Your task to perform on an android device: Go to Wikipedia Image 0: 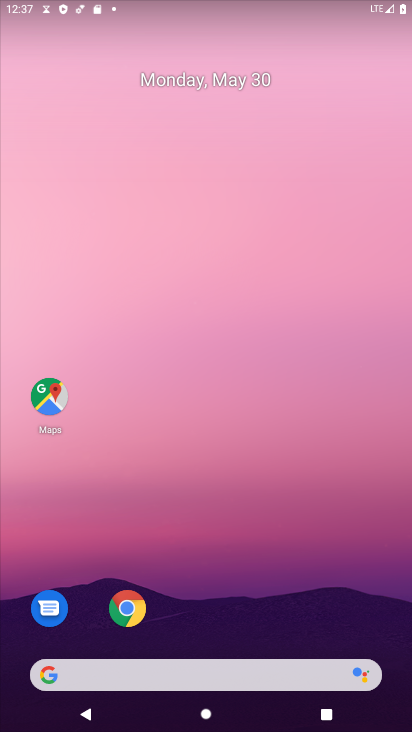
Step 0: click (142, 615)
Your task to perform on an android device: Go to Wikipedia Image 1: 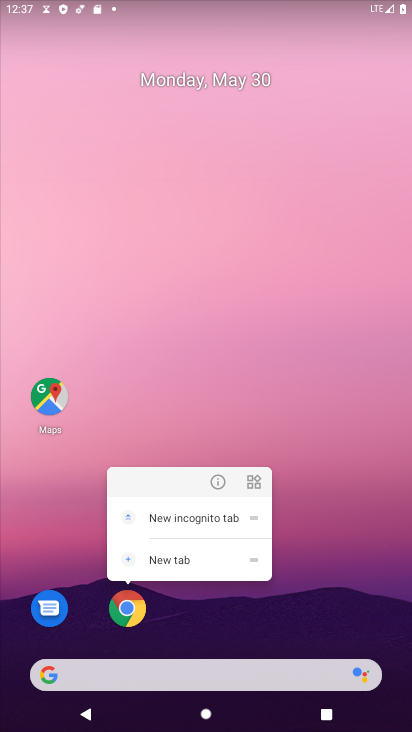
Step 1: click (147, 607)
Your task to perform on an android device: Go to Wikipedia Image 2: 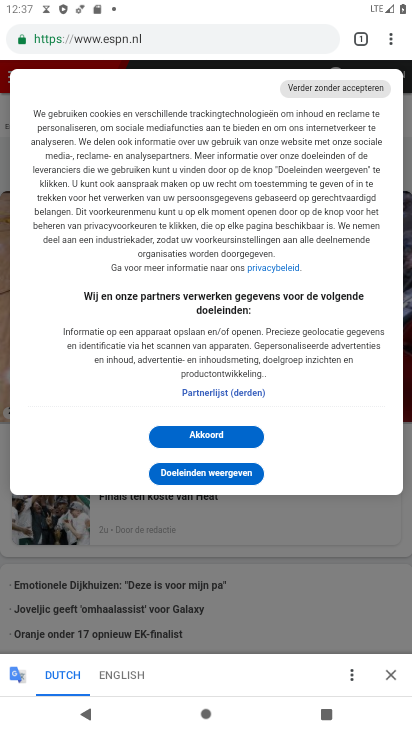
Step 2: click (256, 41)
Your task to perform on an android device: Go to Wikipedia Image 3: 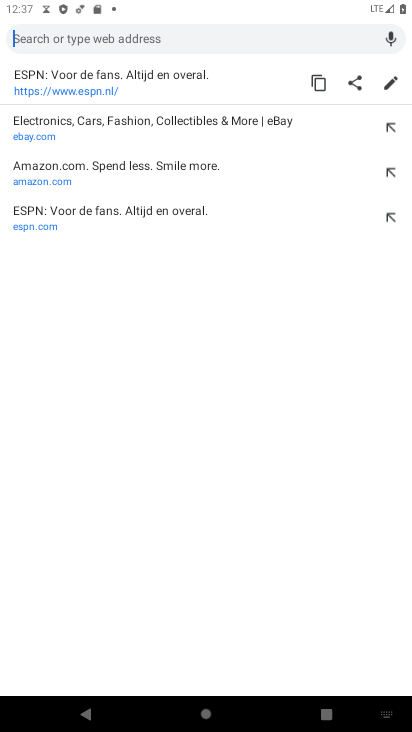
Step 3: type "wikipedia"
Your task to perform on an android device: Go to Wikipedia Image 4: 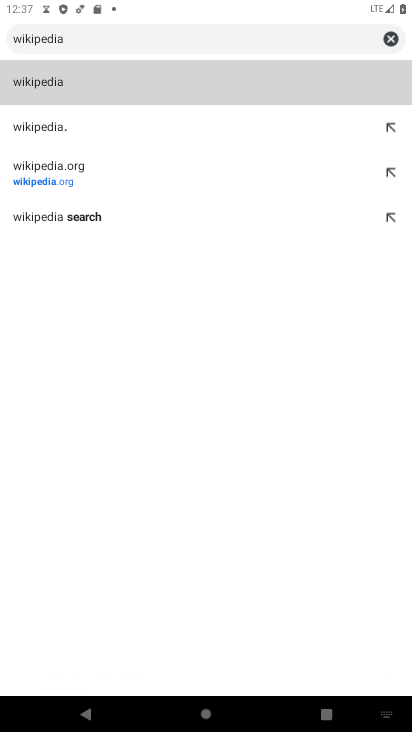
Step 4: click (75, 73)
Your task to perform on an android device: Go to Wikipedia Image 5: 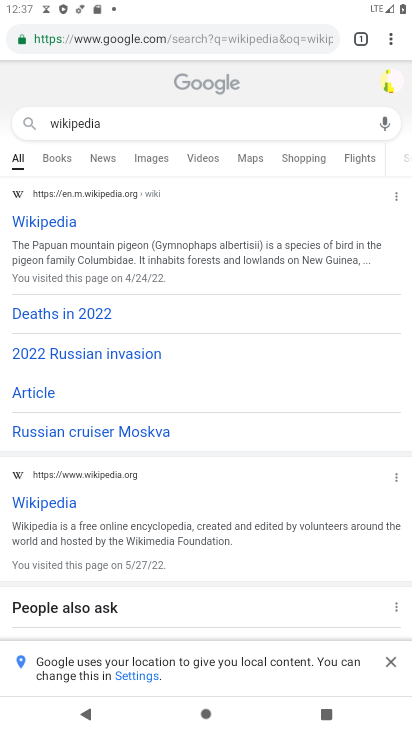
Step 5: task complete